Your task to perform on an android device: check android version Image 0: 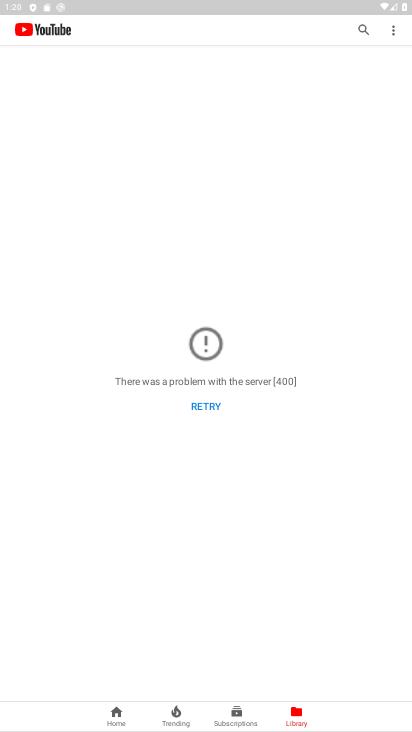
Step 0: press home button
Your task to perform on an android device: check android version Image 1: 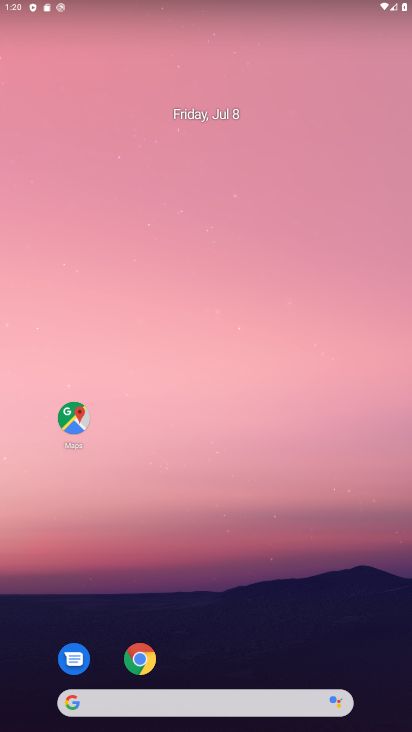
Step 1: drag from (213, 663) to (218, 178)
Your task to perform on an android device: check android version Image 2: 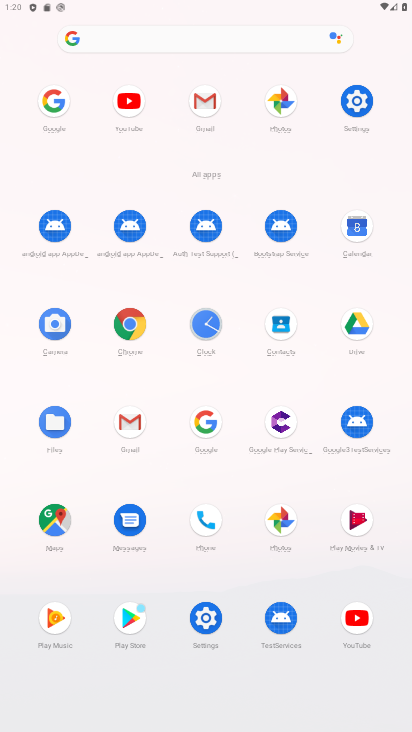
Step 2: click (206, 617)
Your task to perform on an android device: check android version Image 3: 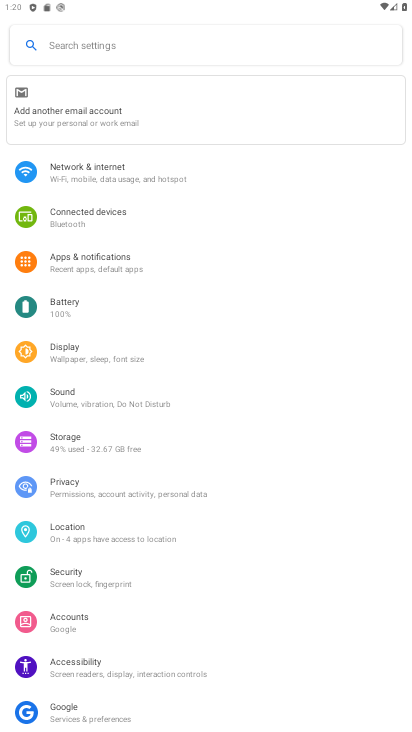
Step 3: drag from (110, 606) to (155, 506)
Your task to perform on an android device: check android version Image 4: 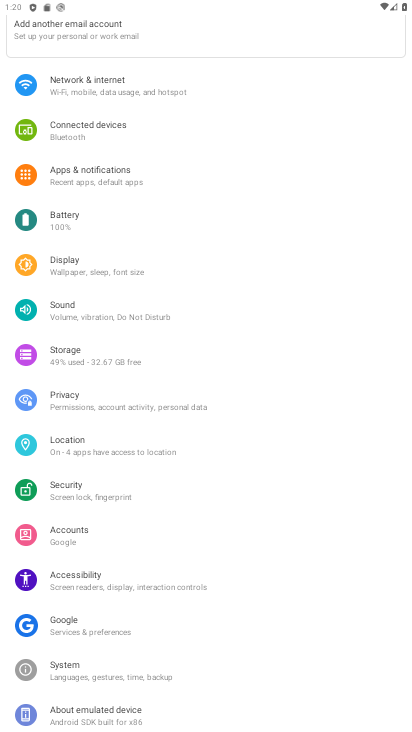
Step 4: drag from (137, 630) to (188, 532)
Your task to perform on an android device: check android version Image 5: 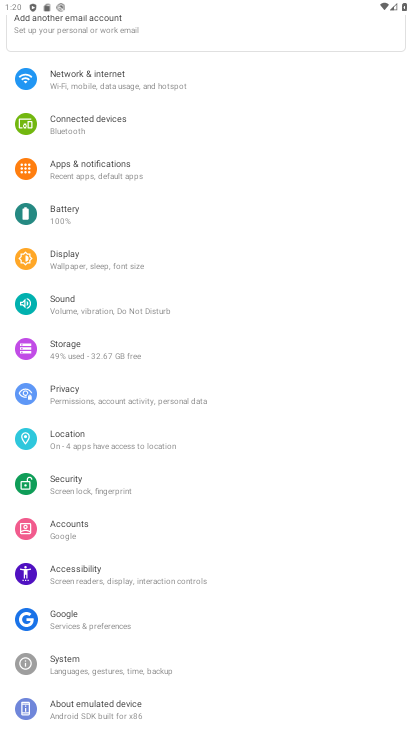
Step 5: click (111, 699)
Your task to perform on an android device: check android version Image 6: 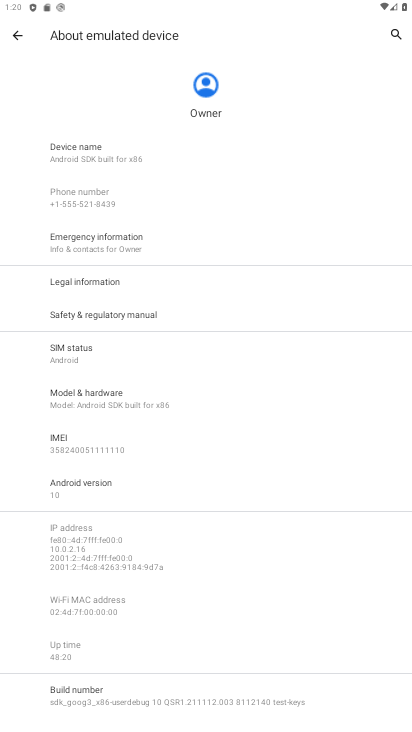
Step 6: click (101, 490)
Your task to perform on an android device: check android version Image 7: 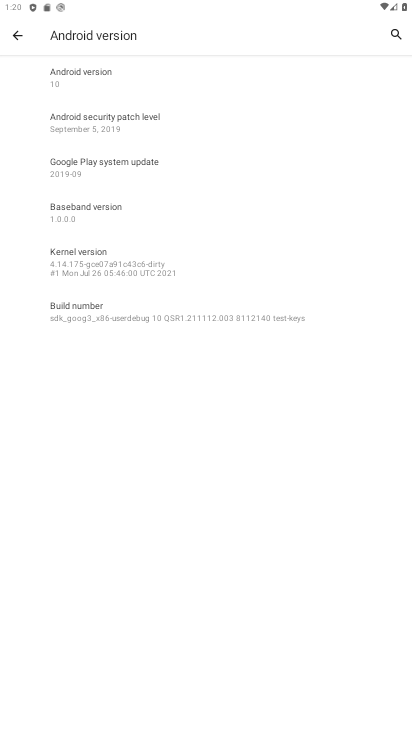
Step 7: task complete